Your task to perform on an android device: see tabs open on other devices in the chrome app Image 0: 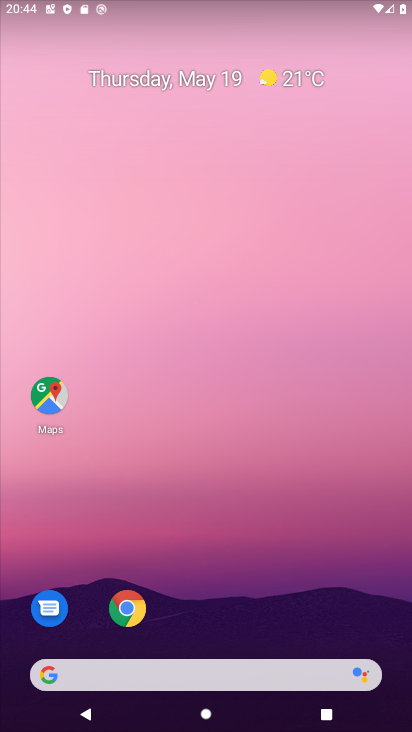
Step 0: click (126, 611)
Your task to perform on an android device: see tabs open on other devices in the chrome app Image 1: 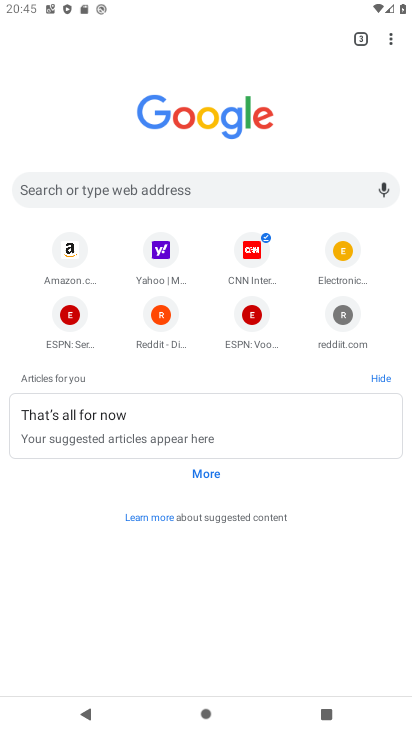
Step 1: click (390, 37)
Your task to perform on an android device: see tabs open on other devices in the chrome app Image 2: 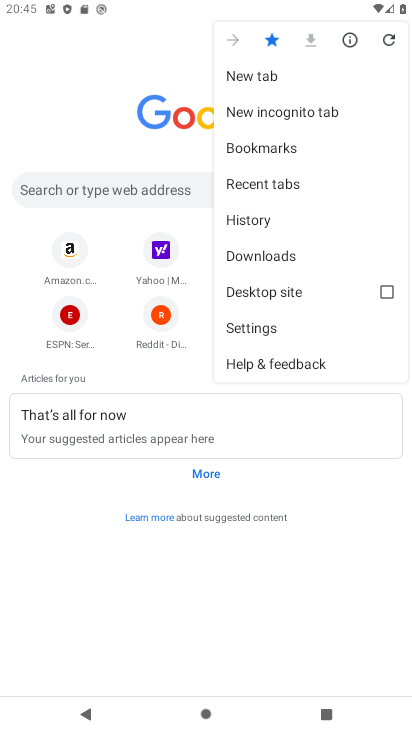
Step 2: click (257, 182)
Your task to perform on an android device: see tabs open on other devices in the chrome app Image 3: 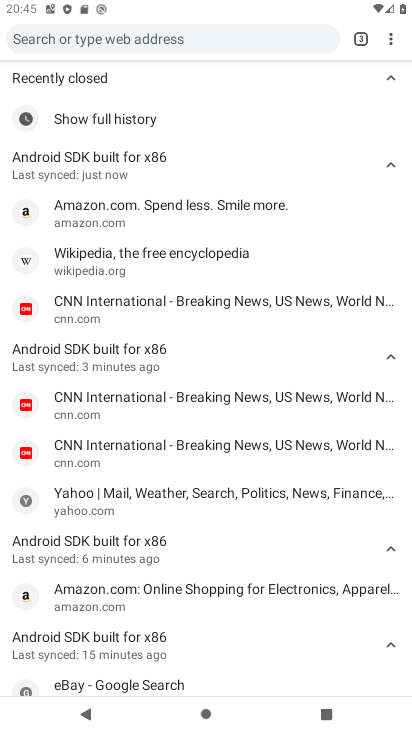
Step 3: task complete